Your task to perform on an android device: install app "Airtel Thanks" Image 0: 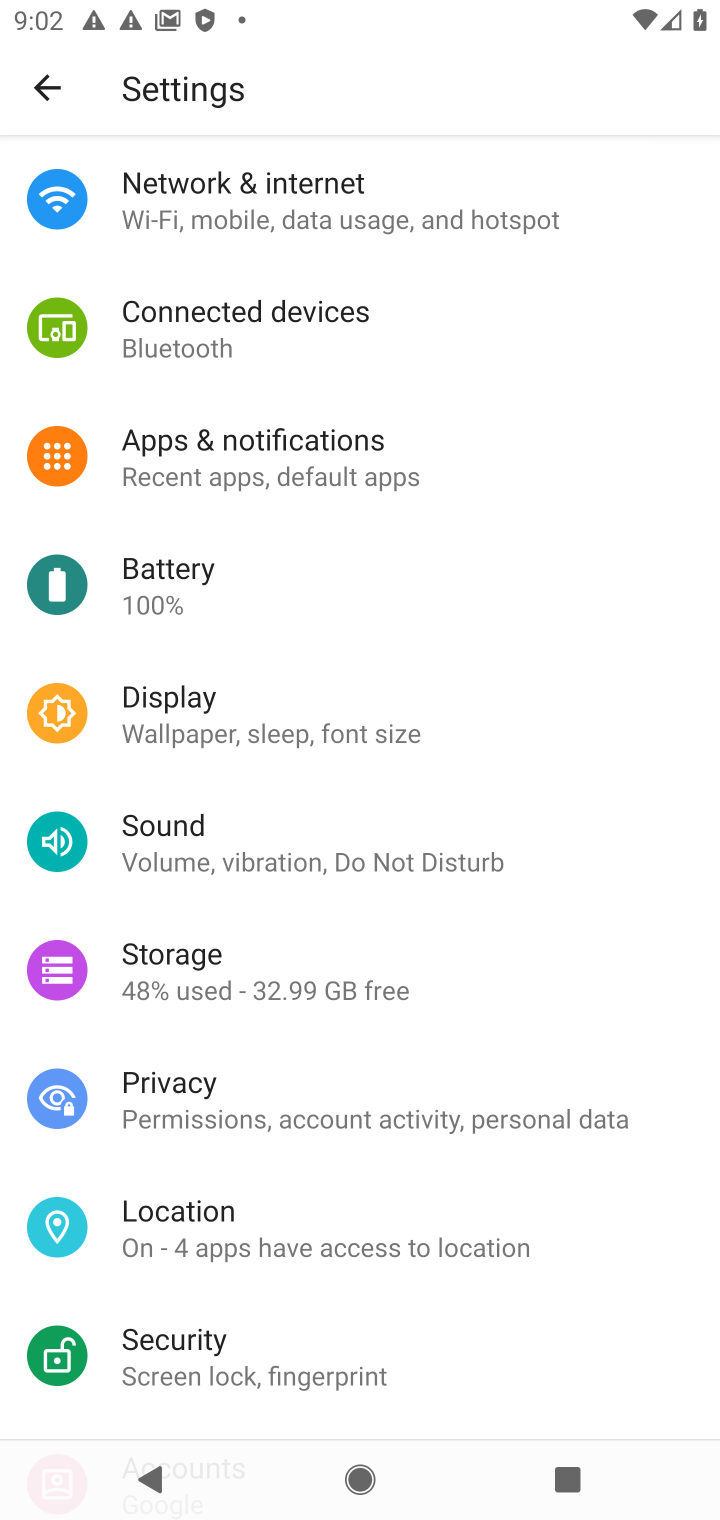
Step 0: press home button
Your task to perform on an android device: install app "Airtel Thanks" Image 1: 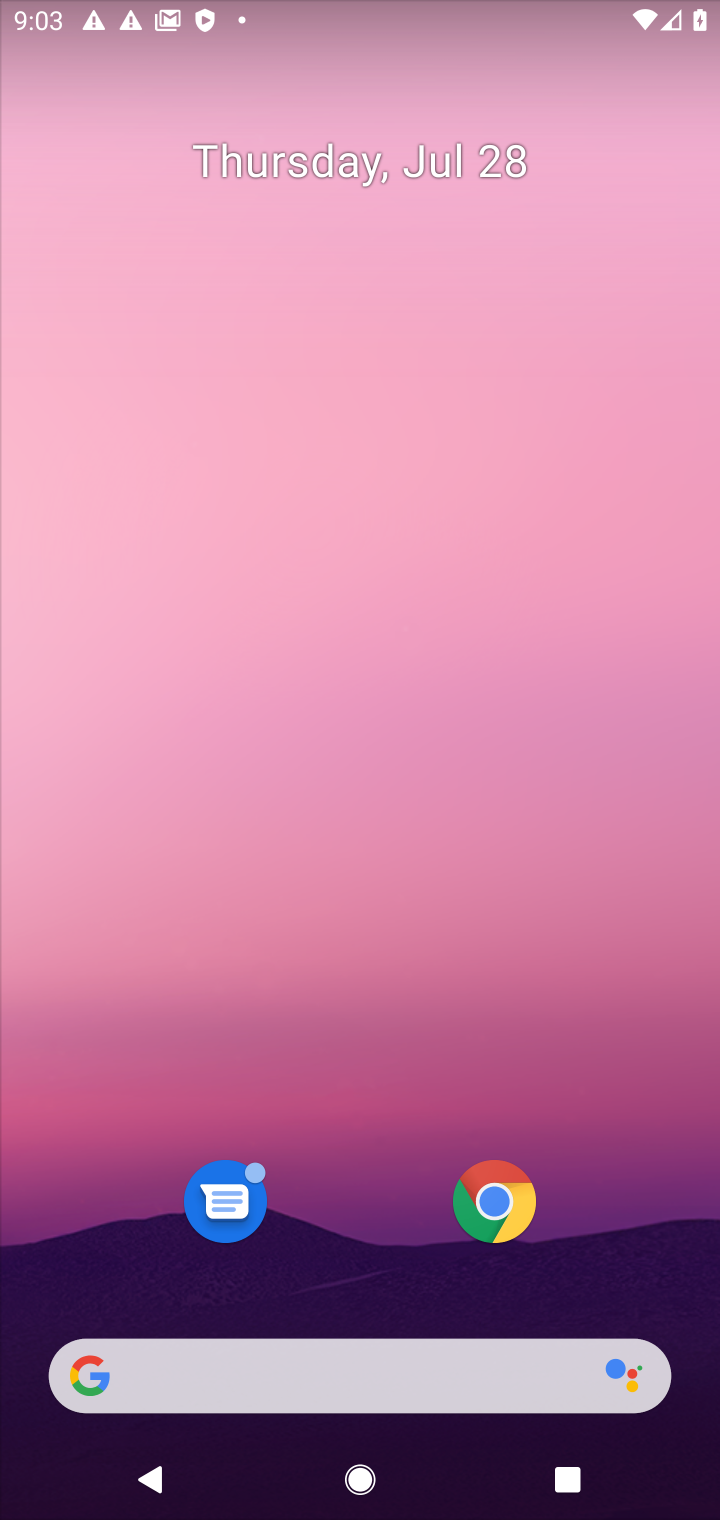
Step 1: click (367, 1347)
Your task to perform on an android device: install app "Airtel Thanks" Image 2: 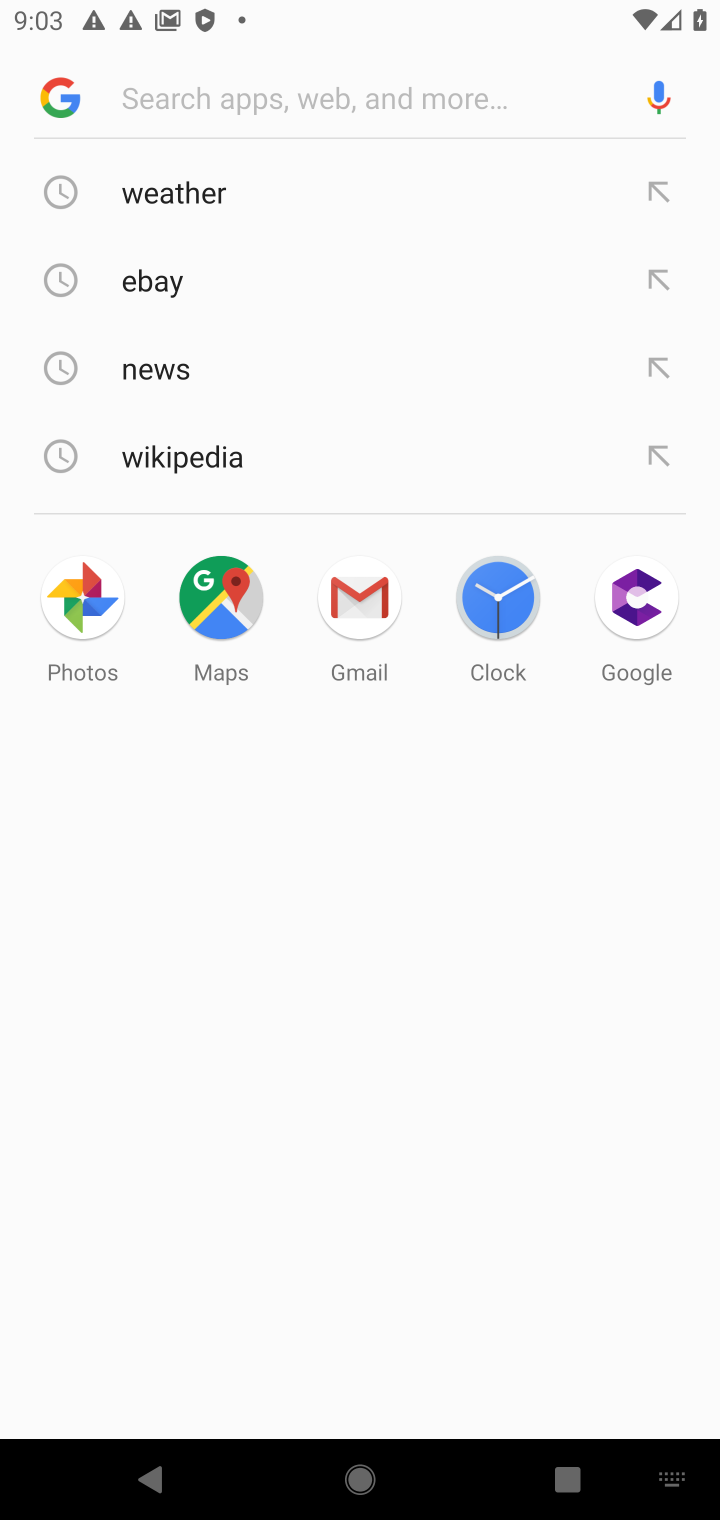
Step 2: type "airtel thanks"
Your task to perform on an android device: install app "Airtel Thanks" Image 3: 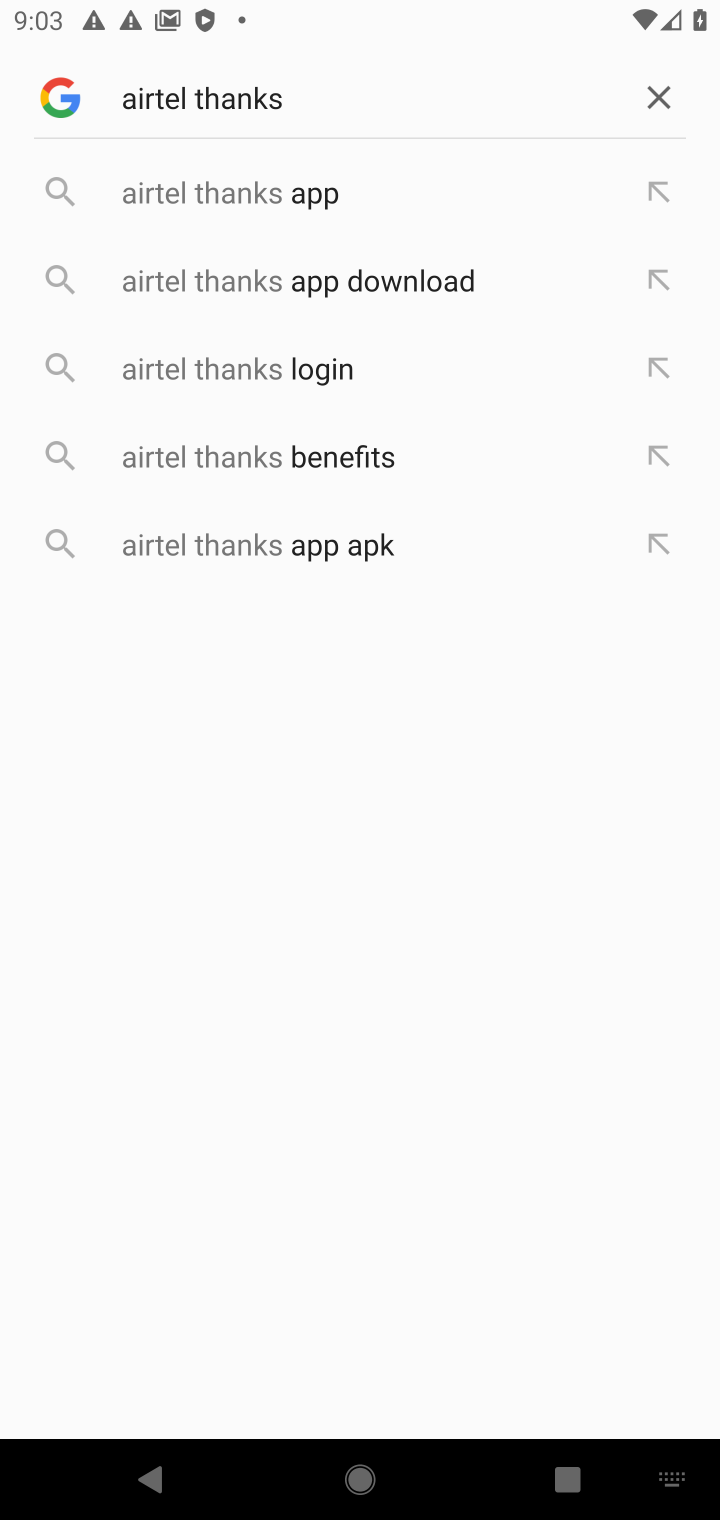
Step 3: click (294, 170)
Your task to perform on an android device: install app "Airtel Thanks" Image 4: 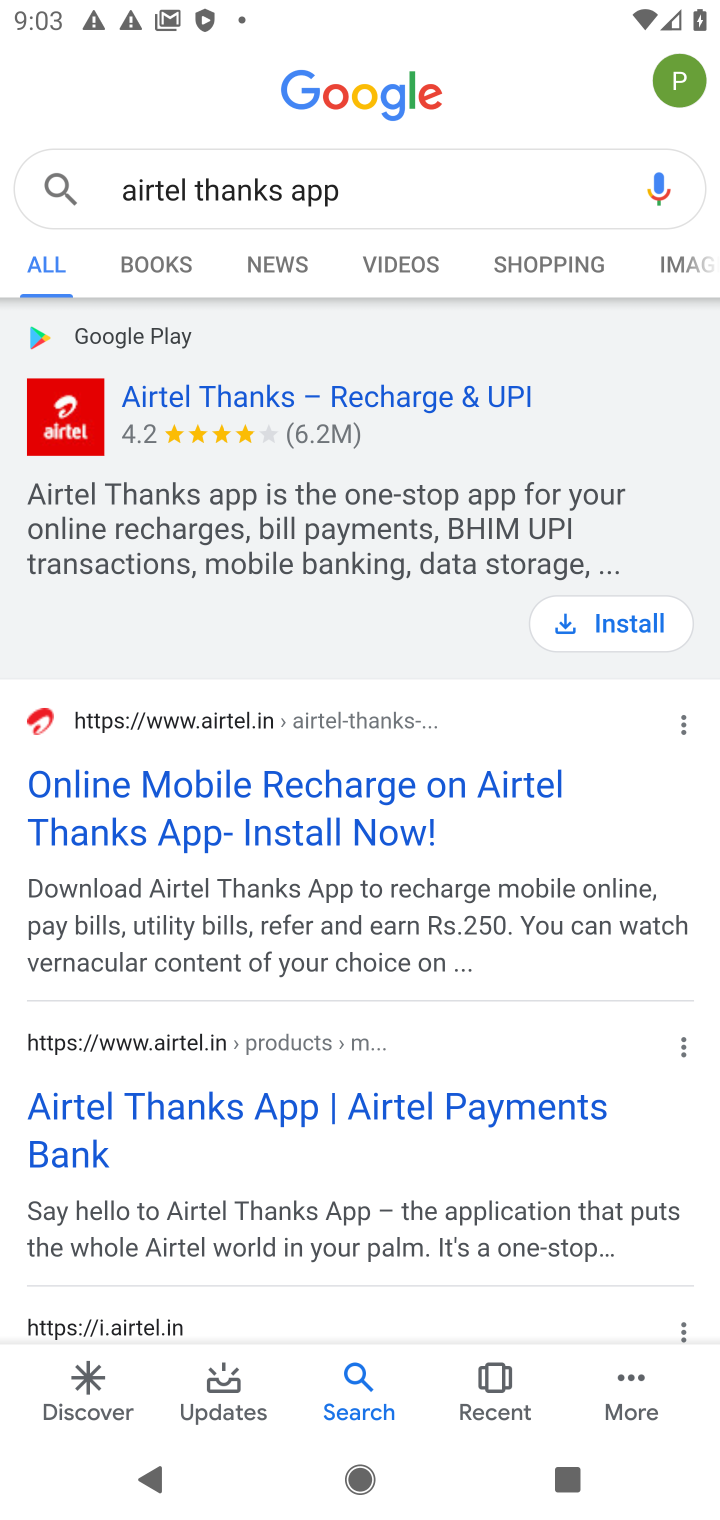
Step 4: click (581, 635)
Your task to perform on an android device: install app "Airtel Thanks" Image 5: 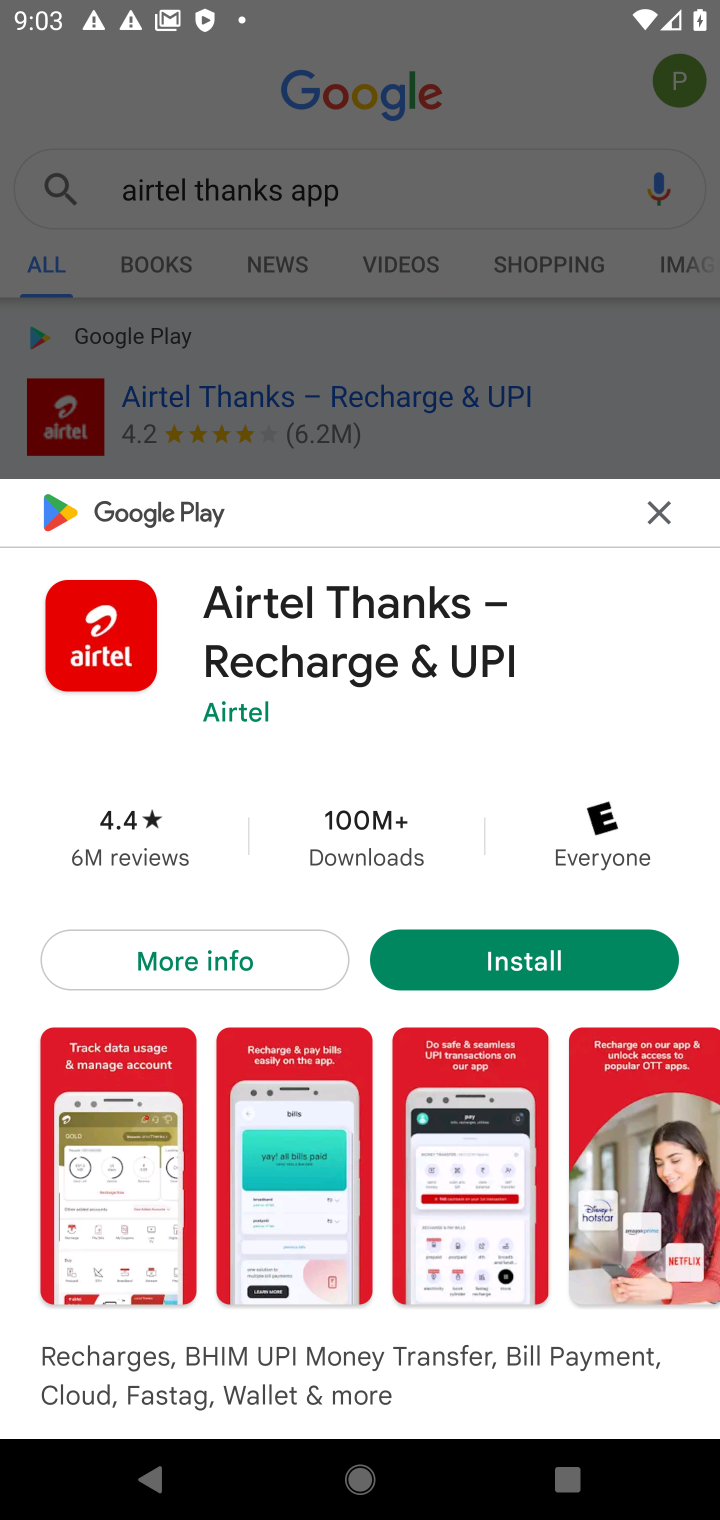
Step 5: click (556, 989)
Your task to perform on an android device: install app "Airtel Thanks" Image 6: 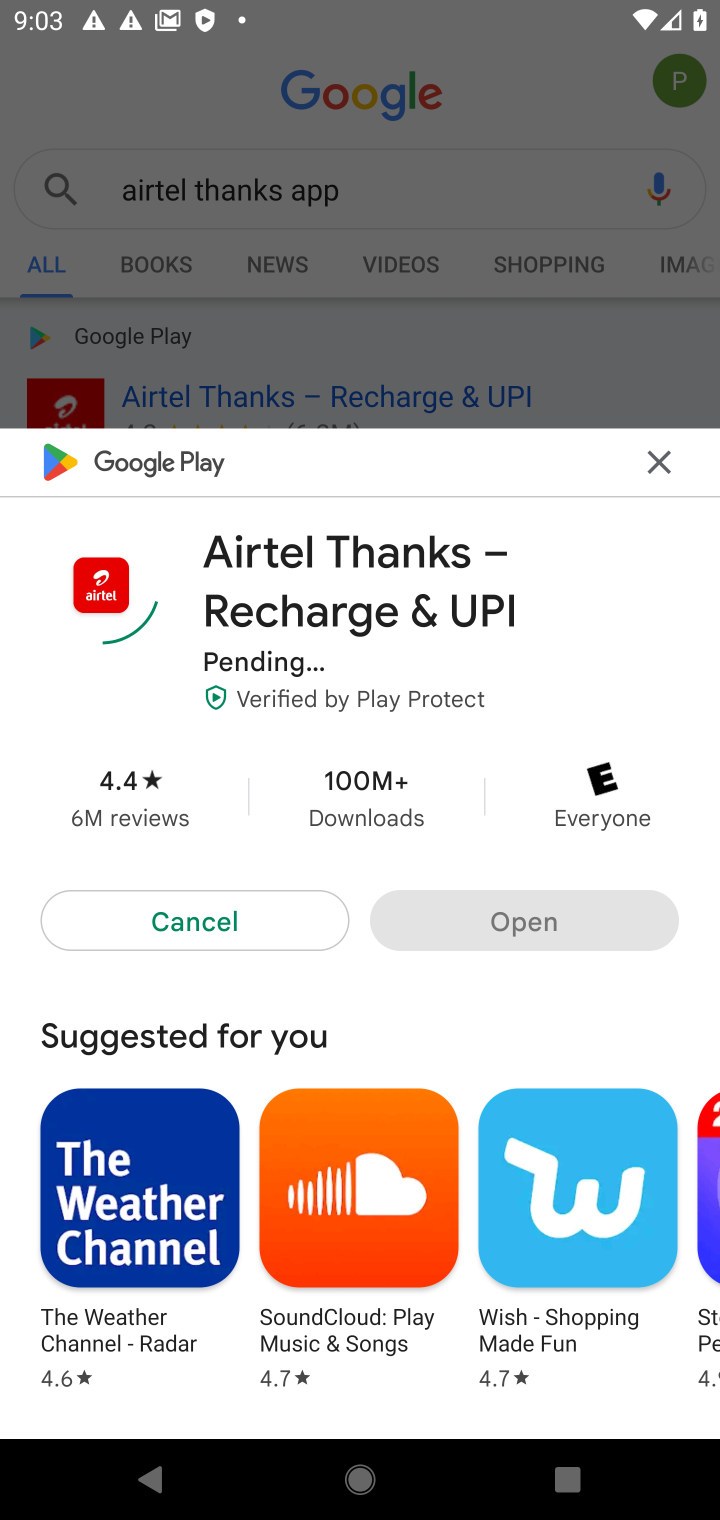
Step 6: task complete